Your task to perform on an android device: Open my contact list Image 0: 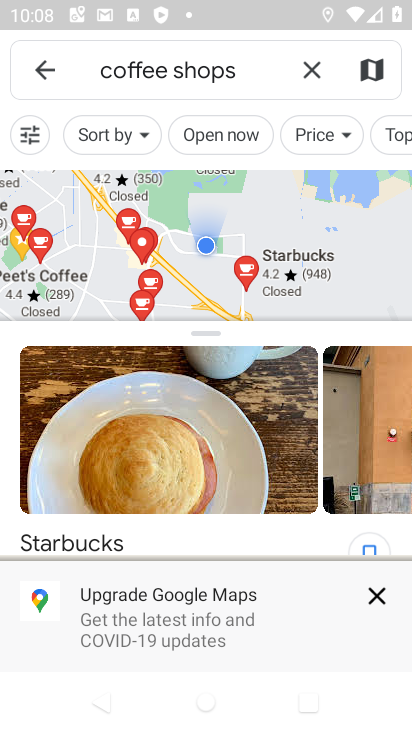
Step 0: press home button
Your task to perform on an android device: Open my contact list Image 1: 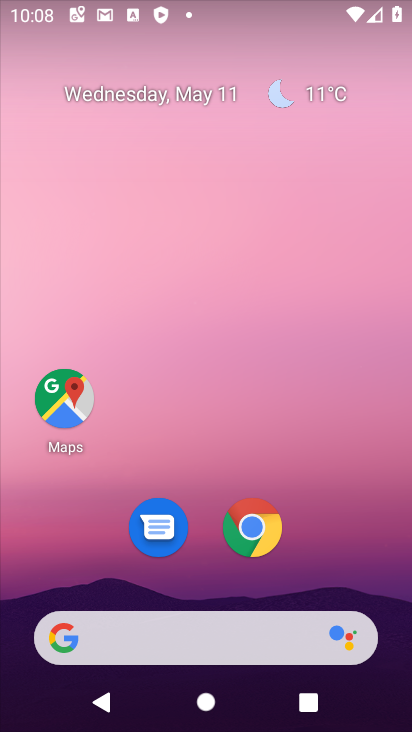
Step 1: drag from (379, 540) to (368, 38)
Your task to perform on an android device: Open my contact list Image 2: 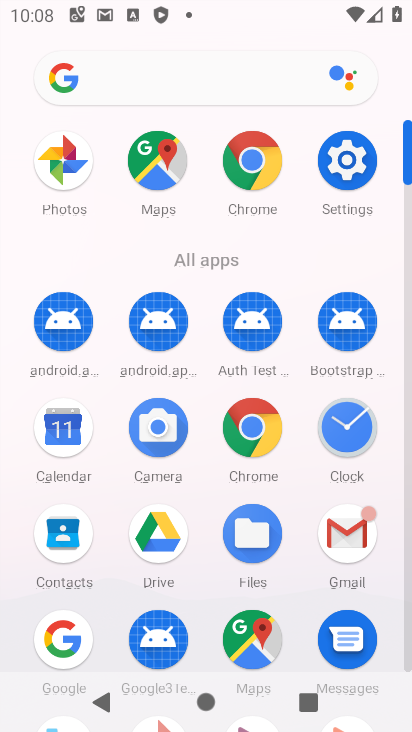
Step 2: click (66, 547)
Your task to perform on an android device: Open my contact list Image 3: 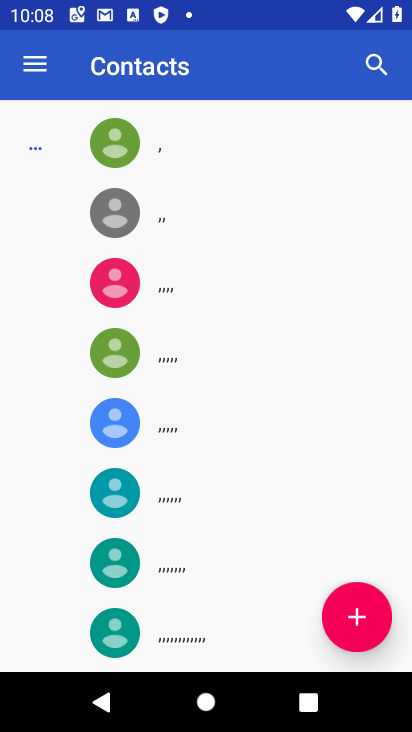
Step 3: task complete